Your task to perform on an android device: Is it going to rain today? Image 0: 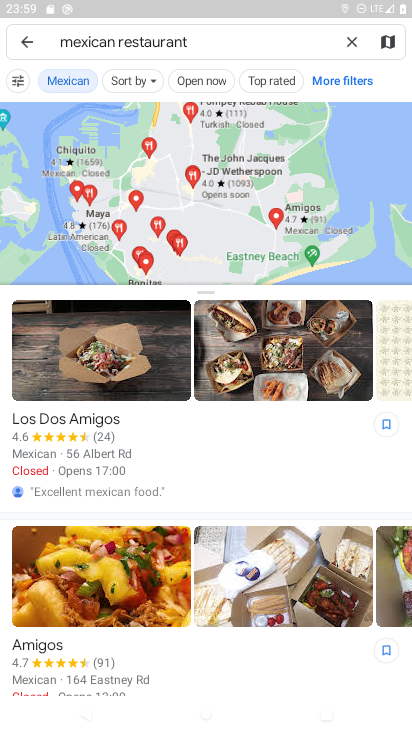
Step 0: press home button
Your task to perform on an android device: Is it going to rain today? Image 1: 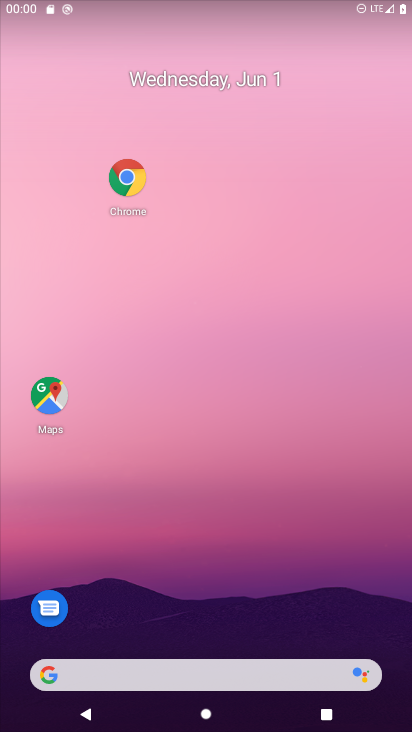
Step 1: click (129, 184)
Your task to perform on an android device: Is it going to rain today? Image 2: 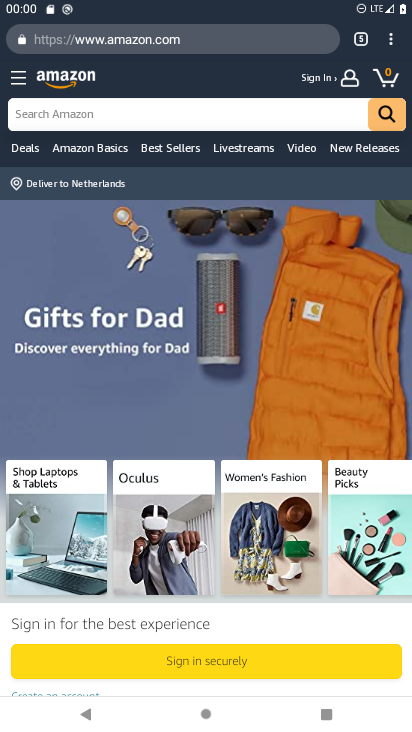
Step 2: click (215, 49)
Your task to perform on an android device: Is it going to rain today? Image 3: 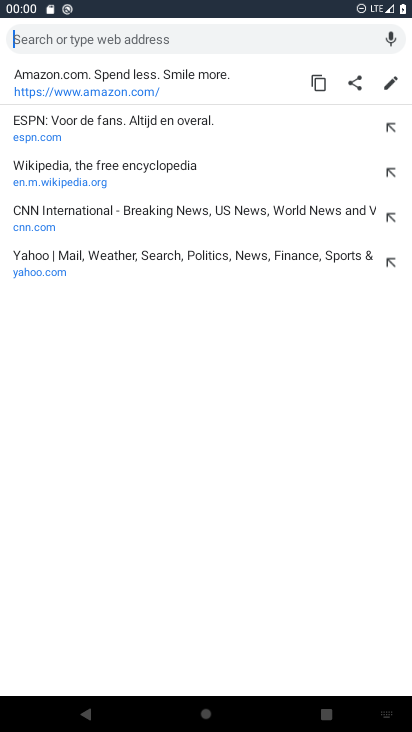
Step 3: type "Is it going to rain today?"
Your task to perform on an android device: Is it going to rain today? Image 4: 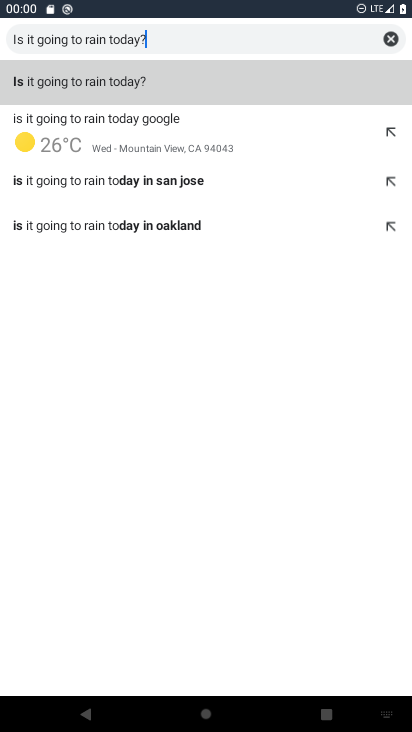
Step 4: click (183, 80)
Your task to perform on an android device: Is it going to rain today? Image 5: 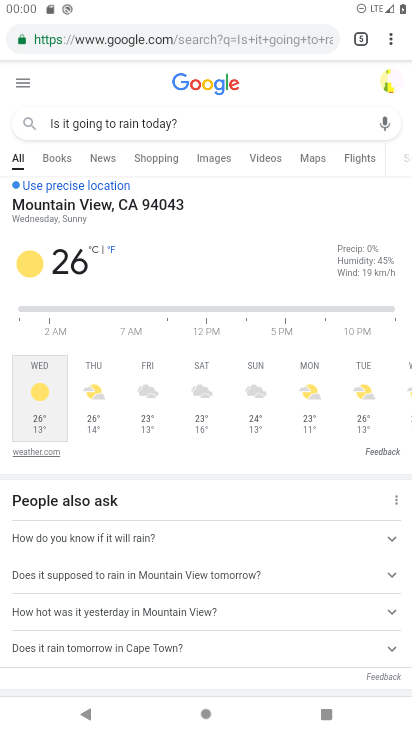
Step 5: task complete